Your task to perform on an android device: delete the emails in spam in the gmail app Image 0: 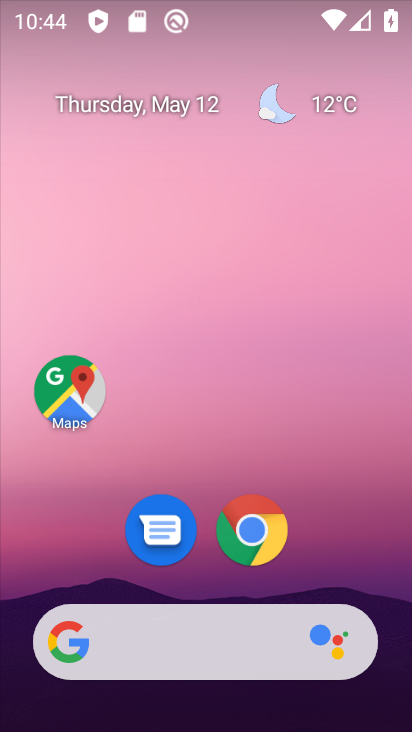
Step 0: press home button
Your task to perform on an android device: delete the emails in spam in the gmail app Image 1: 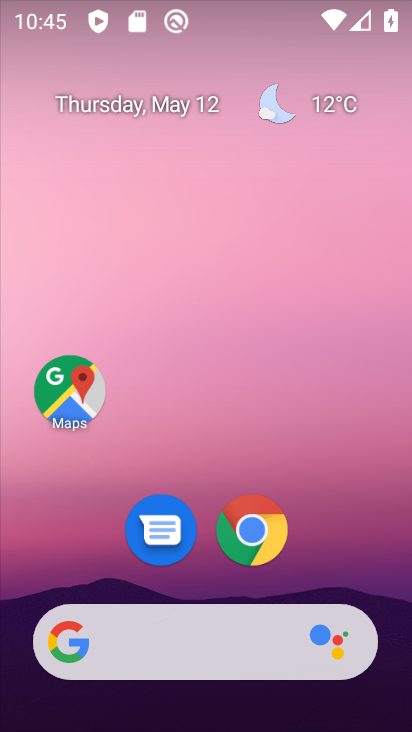
Step 1: drag from (226, 627) to (348, 198)
Your task to perform on an android device: delete the emails in spam in the gmail app Image 2: 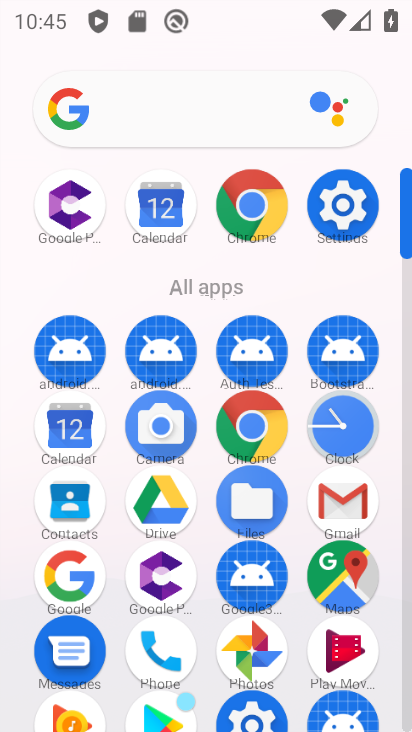
Step 2: click (330, 497)
Your task to perform on an android device: delete the emails in spam in the gmail app Image 3: 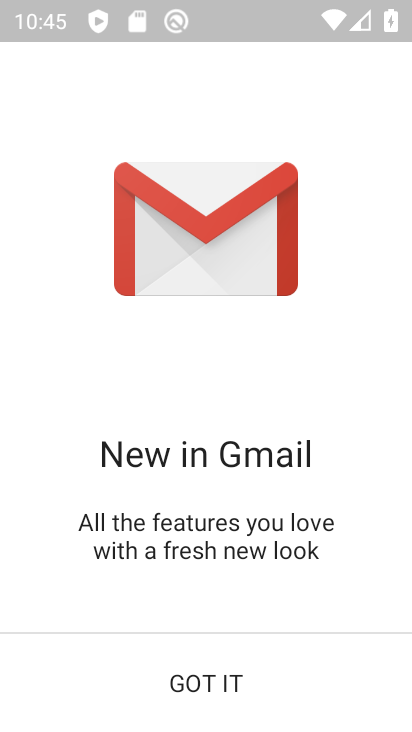
Step 3: click (209, 663)
Your task to perform on an android device: delete the emails in spam in the gmail app Image 4: 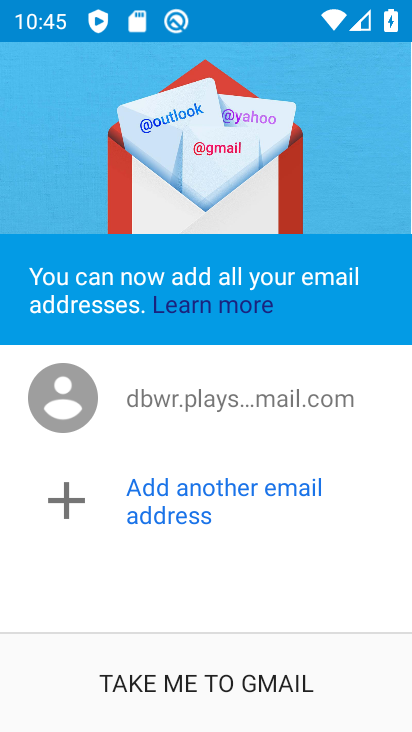
Step 4: click (198, 678)
Your task to perform on an android device: delete the emails in spam in the gmail app Image 5: 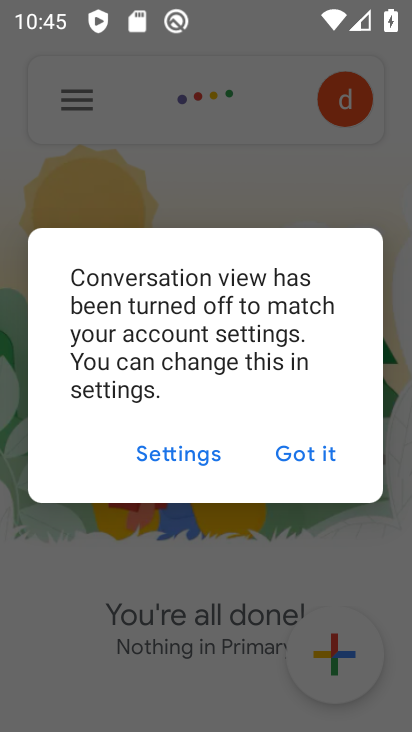
Step 5: click (318, 457)
Your task to perform on an android device: delete the emails in spam in the gmail app Image 6: 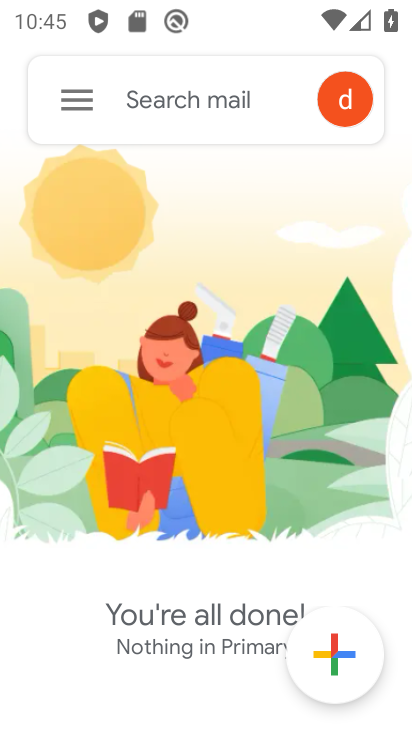
Step 6: click (59, 97)
Your task to perform on an android device: delete the emails in spam in the gmail app Image 7: 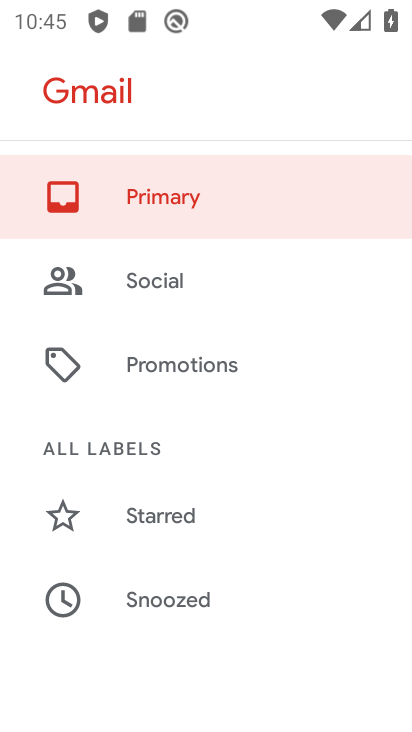
Step 7: drag from (231, 613) to (310, 196)
Your task to perform on an android device: delete the emails in spam in the gmail app Image 8: 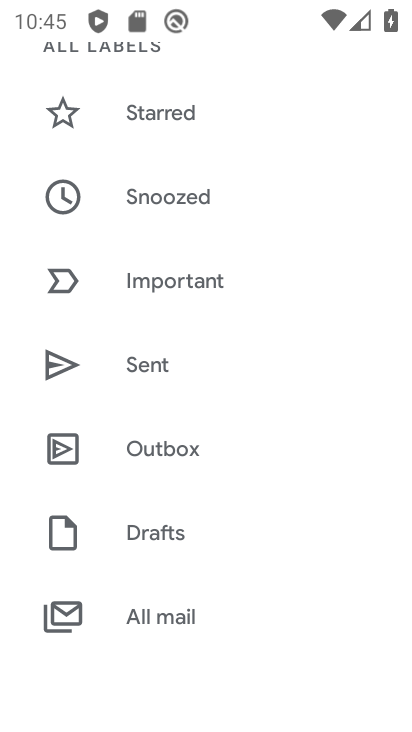
Step 8: drag from (226, 542) to (304, 159)
Your task to perform on an android device: delete the emails in spam in the gmail app Image 9: 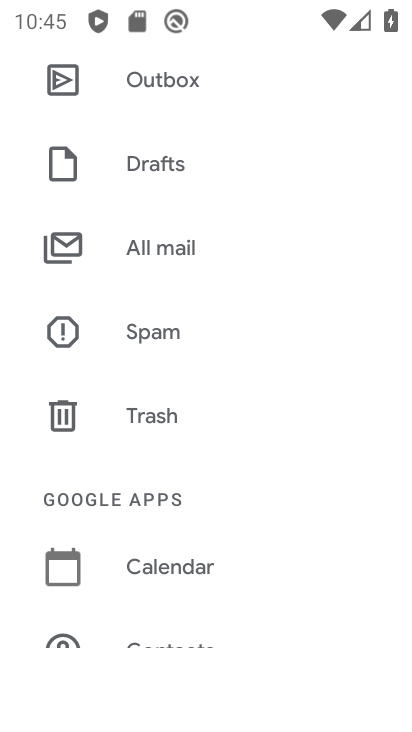
Step 9: click (161, 336)
Your task to perform on an android device: delete the emails in spam in the gmail app Image 10: 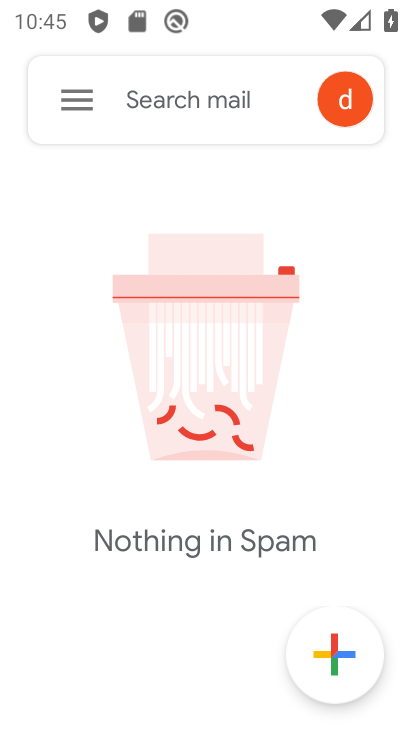
Step 10: task complete